Your task to perform on an android device: Open settings Image 0: 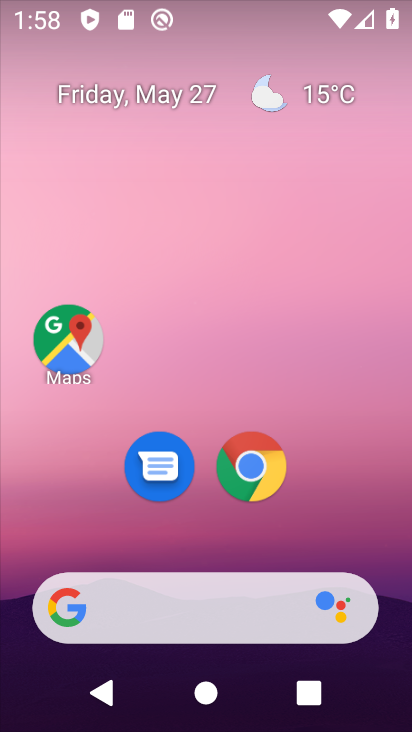
Step 0: drag from (368, 516) to (351, 96)
Your task to perform on an android device: Open settings Image 1: 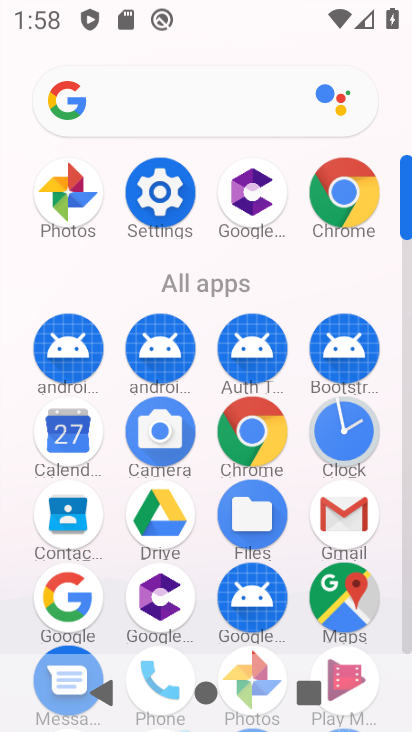
Step 1: click (142, 198)
Your task to perform on an android device: Open settings Image 2: 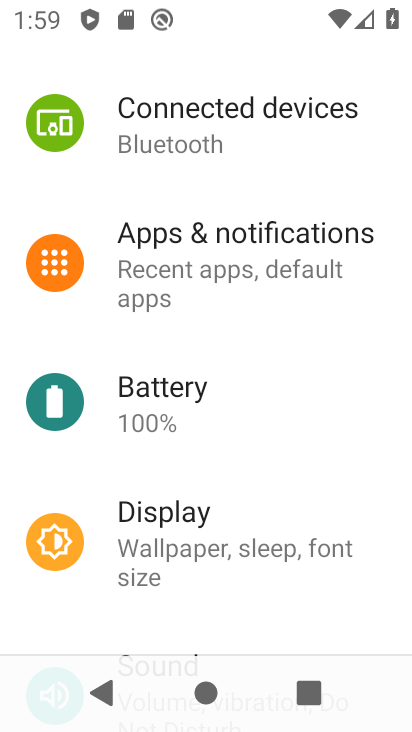
Step 2: task complete